Your task to perform on an android device: Go to Yahoo.com Image 0: 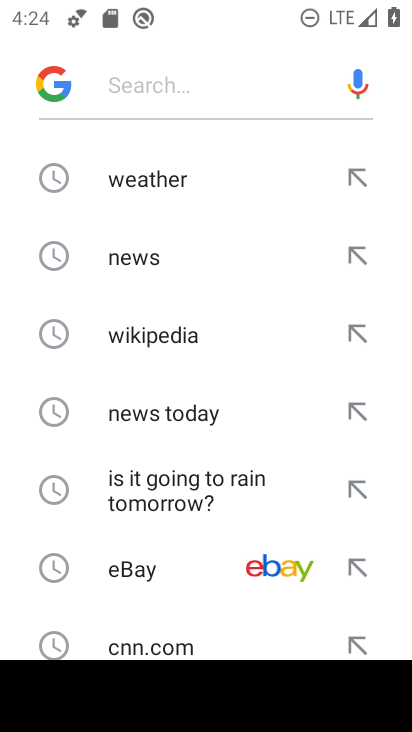
Step 0: press home button
Your task to perform on an android device: Go to Yahoo.com Image 1: 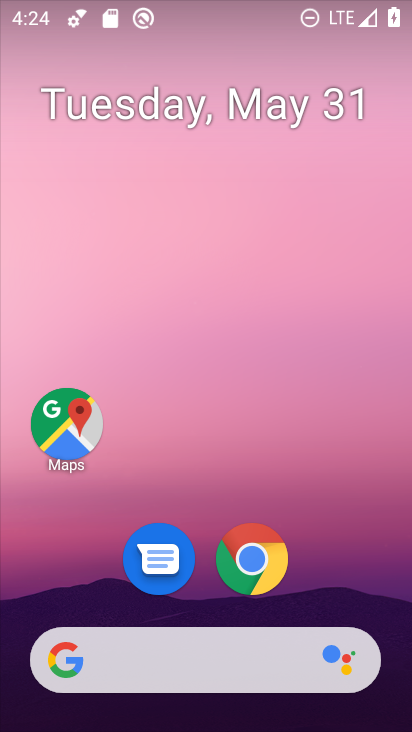
Step 1: click (253, 576)
Your task to perform on an android device: Go to Yahoo.com Image 2: 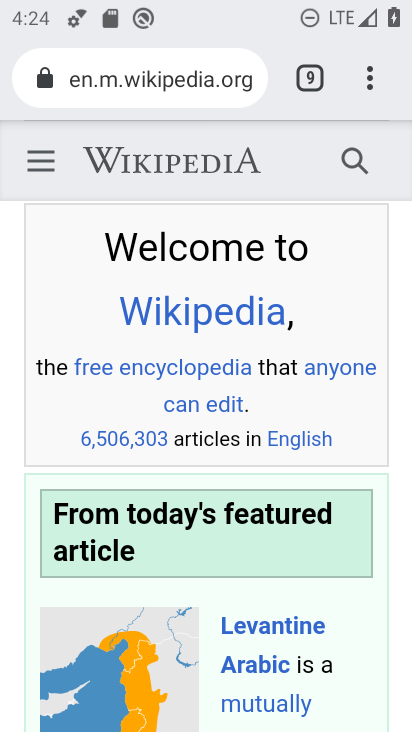
Step 2: click (370, 87)
Your task to perform on an android device: Go to Yahoo.com Image 3: 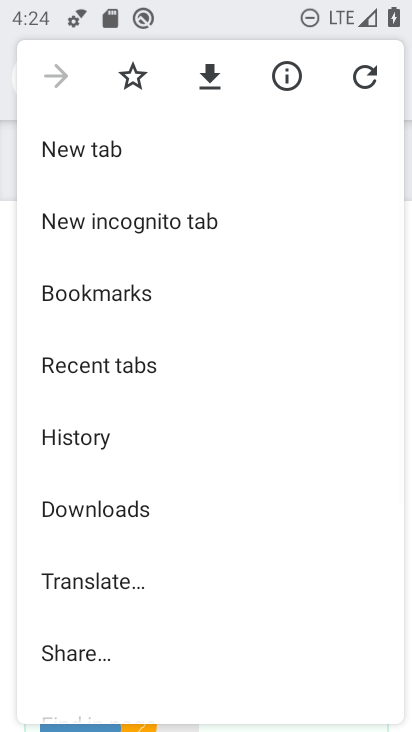
Step 3: click (100, 149)
Your task to perform on an android device: Go to Yahoo.com Image 4: 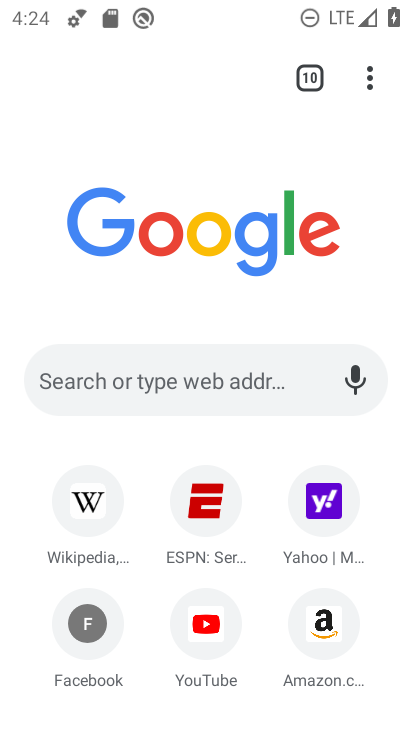
Step 4: click (323, 506)
Your task to perform on an android device: Go to Yahoo.com Image 5: 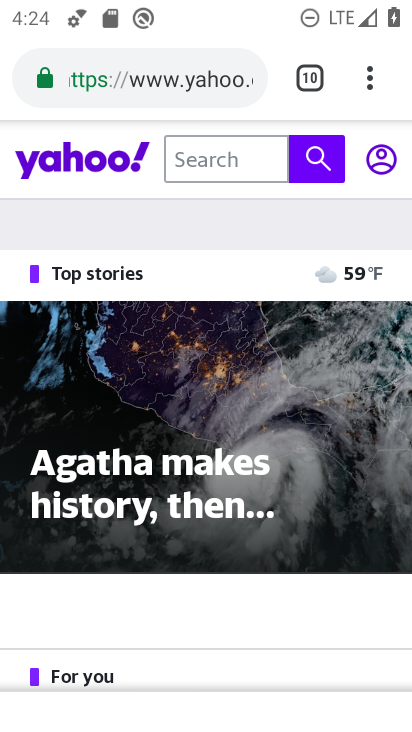
Step 5: task complete